Your task to perform on an android device: turn notification dots on Image 0: 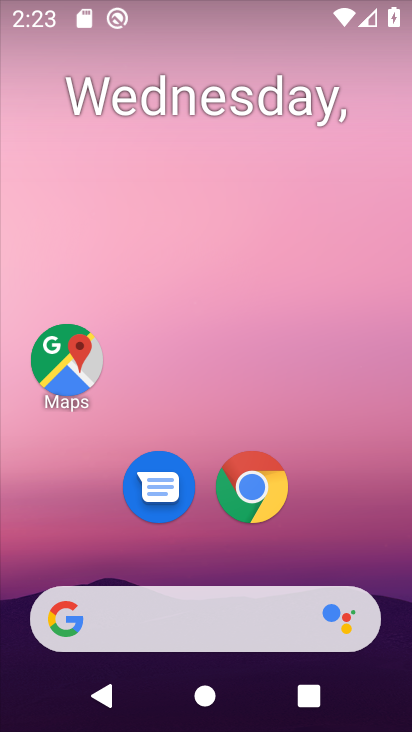
Step 0: drag from (208, 439) to (235, 53)
Your task to perform on an android device: turn notification dots on Image 1: 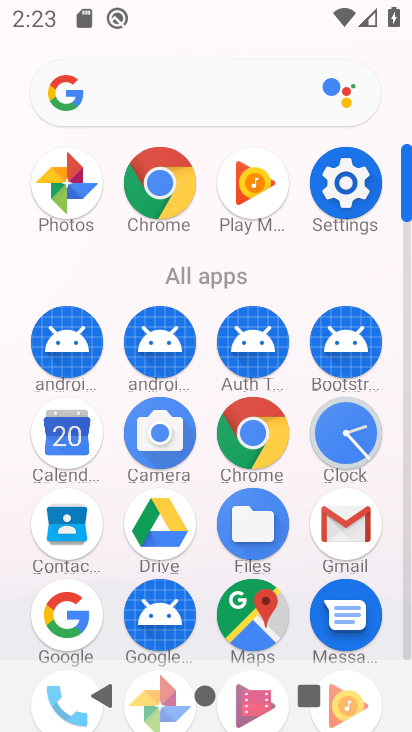
Step 1: click (338, 182)
Your task to perform on an android device: turn notification dots on Image 2: 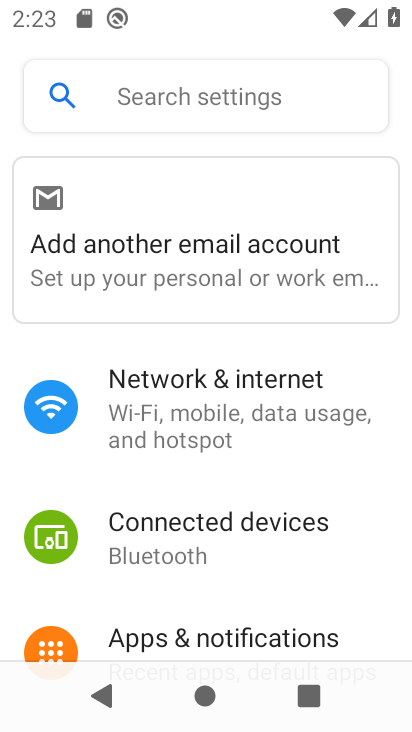
Step 2: click (220, 633)
Your task to perform on an android device: turn notification dots on Image 3: 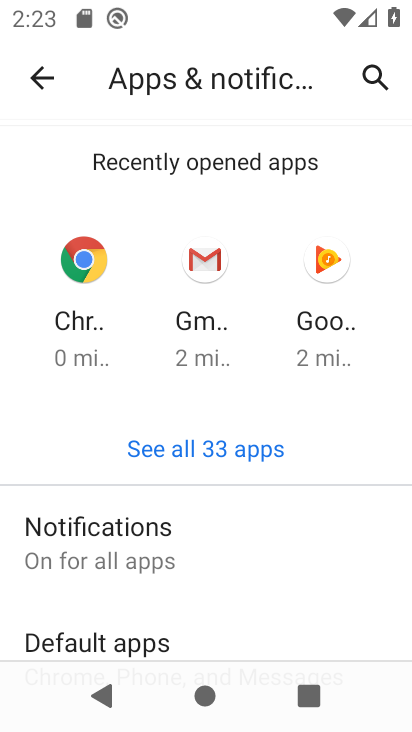
Step 3: drag from (220, 633) to (224, 333)
Your task to perform on an android device: turn notification dots on Image 4: 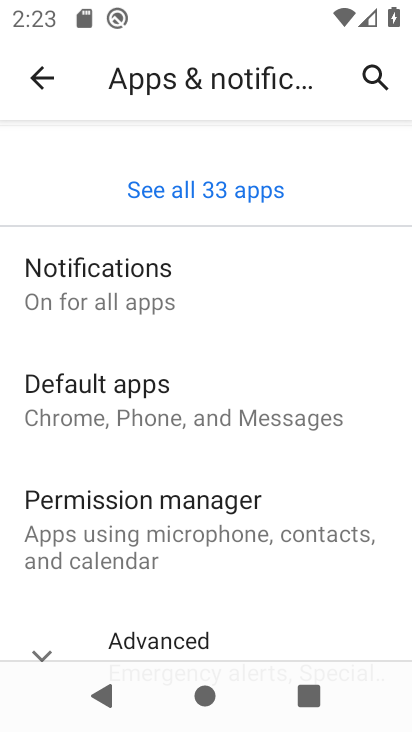
Step 4: click (165, 300)
Your task to perform on an android device: turn notification dots on Image 5: 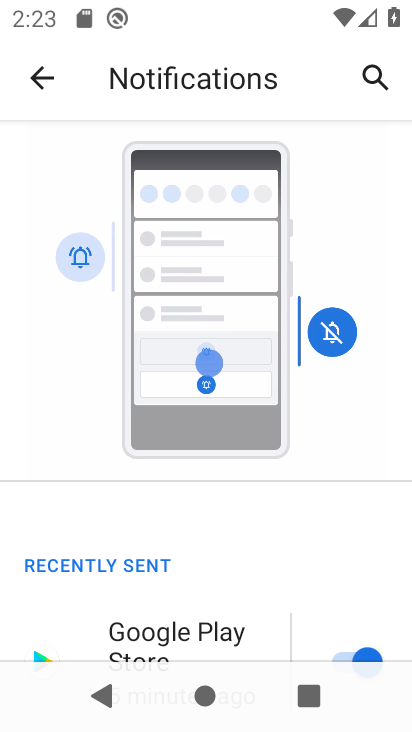
Step 5: drag from (221, 590) to (215, 153)
Your task to perform on an android device: turn notification dots on Image 6: 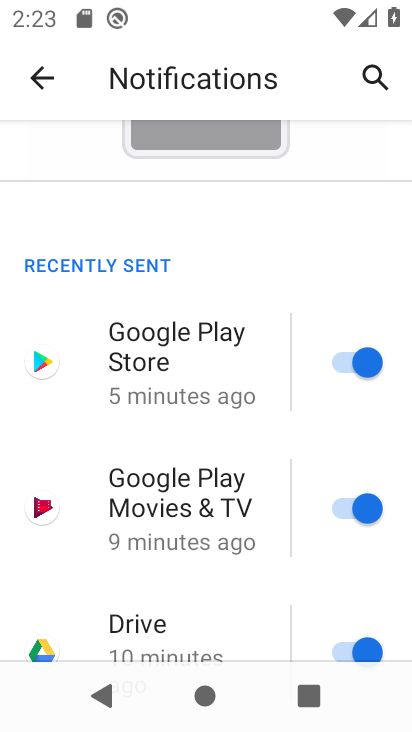
Step 6: drag from (237, 604) to (241, 148)
Your task to perform on an android device: turn notification dots on Image 7: 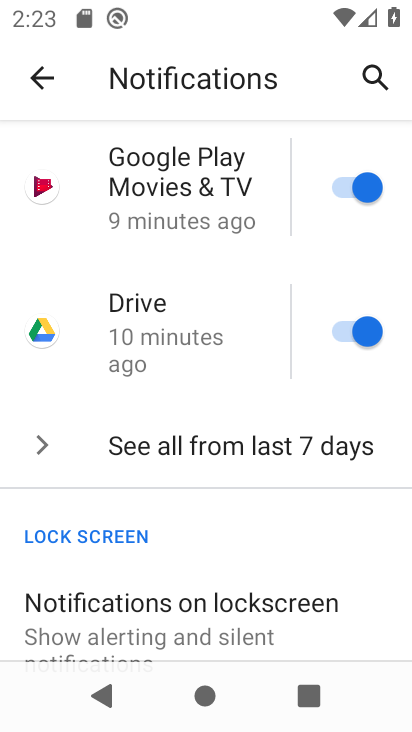
Step 7: drag from (184, 497) to (188, 196)
Your task to perform on an android device: turn notification dots on Image 8: 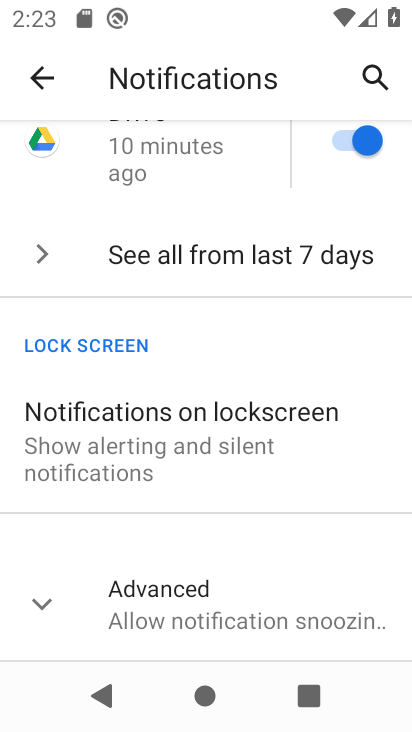
Step 8: drag from (223, 499) to (306, 2)
Your task to perform on an android device: turn notification dots on Image 9: 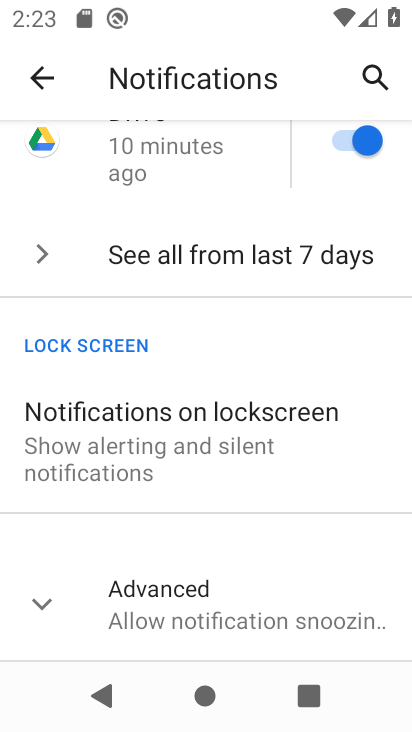
Step 9: drag from (239, 597) to (226, 367)
Your task to perform on an android device: turn notification dots on Image 10: 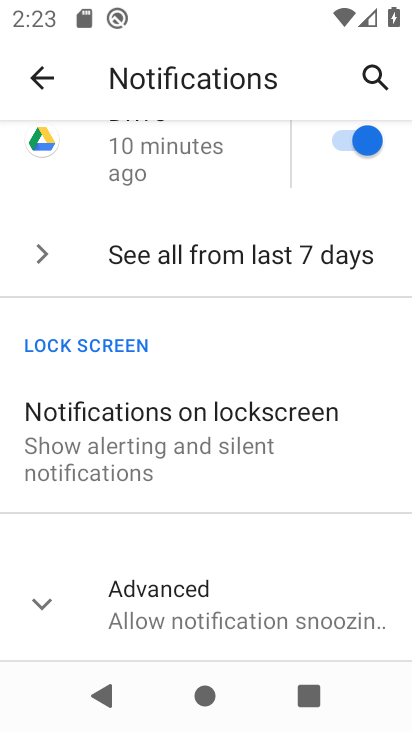
Step 10: click (209, 606)
Your task to perform on an android device: turn notification dots on Image 11: 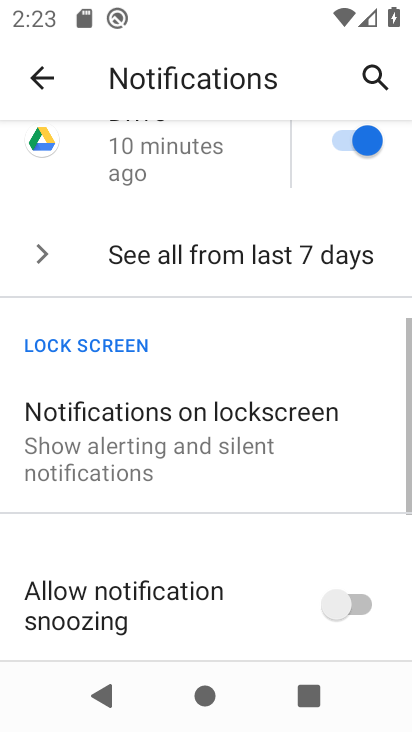
Step 11: task complete